Your task to perform on an android device: move an email to a new category in the gmail app Image 0: 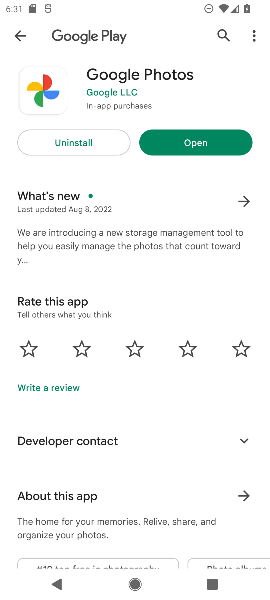
Step 0: press home button
Your task to perform on an android device: move an email to a new category in the gmail app Image 1: 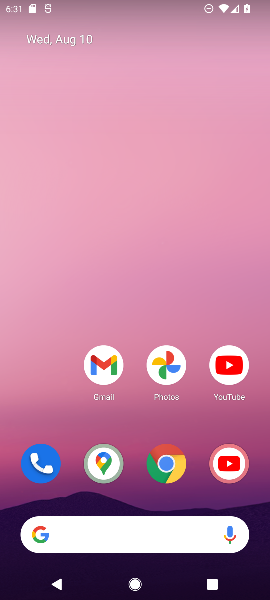
Step 1: click (107, 356)
Your task to perform on an android device: move an email to a new category in the gmail app Image 2: 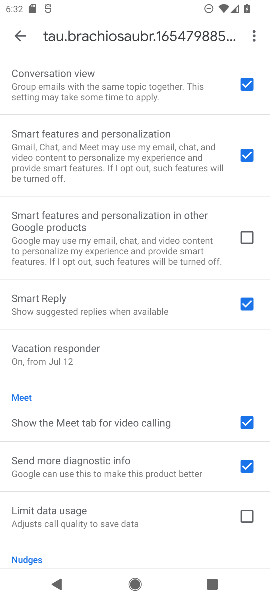
Step 2: click (19, 27)
Your task to perform on an android device: move an email to a new category in the gmail app Image 3: 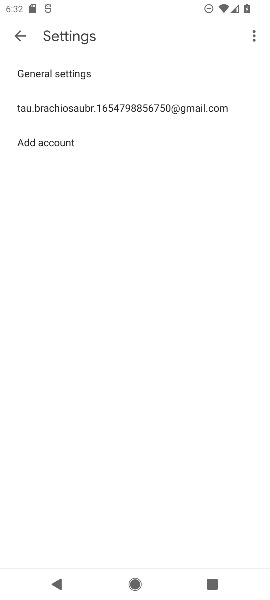
Step 3: click (20, 34)
Your task to perform on an android device: move an email to a new category in the gmail app Image 4: 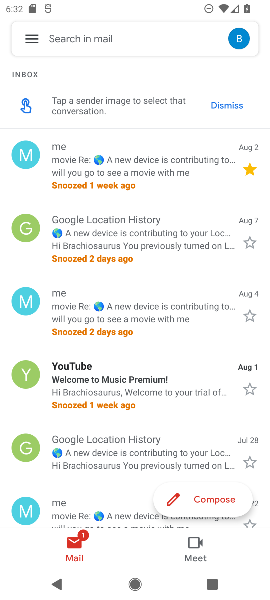
Step 4: click (83, 171)
Your task to perform on an android device: move an email to a new category in the gmail app Image 5: 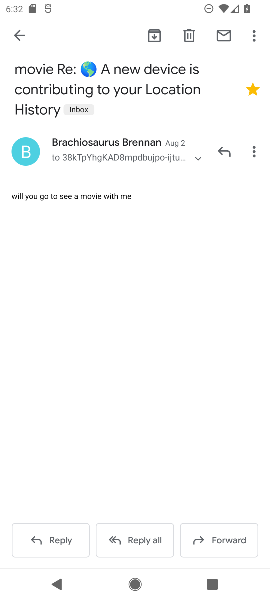
Step 5: click (251, 38)
Your task to perform on an android device: move an email to a new category in the gmail app Image 6: 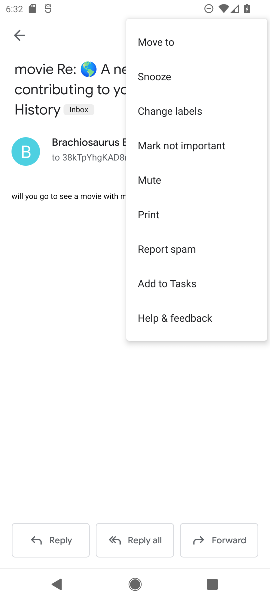
Step 6: click (165, 45)
Your task to perform on an android device: move an email to a new category in the gmail app Image 7: 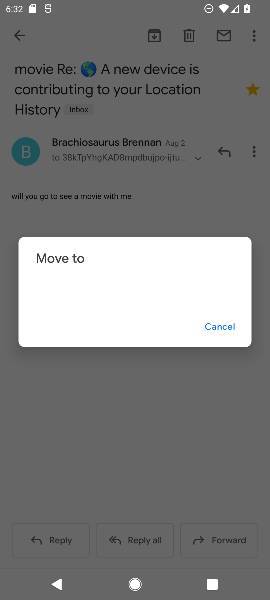
Step 7: click (76, 288)
Your task to perform on an android device: move an email to a new category in the gmail app Image 8: 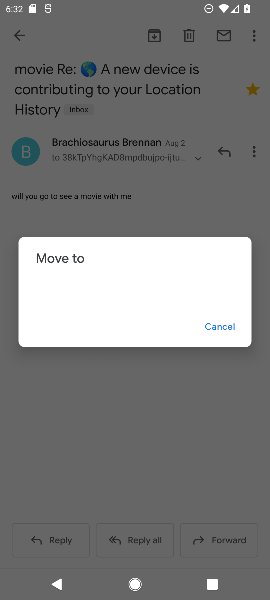
Step 8: task complete